Your task to perform on an android device: change text size in settings app Image 0: 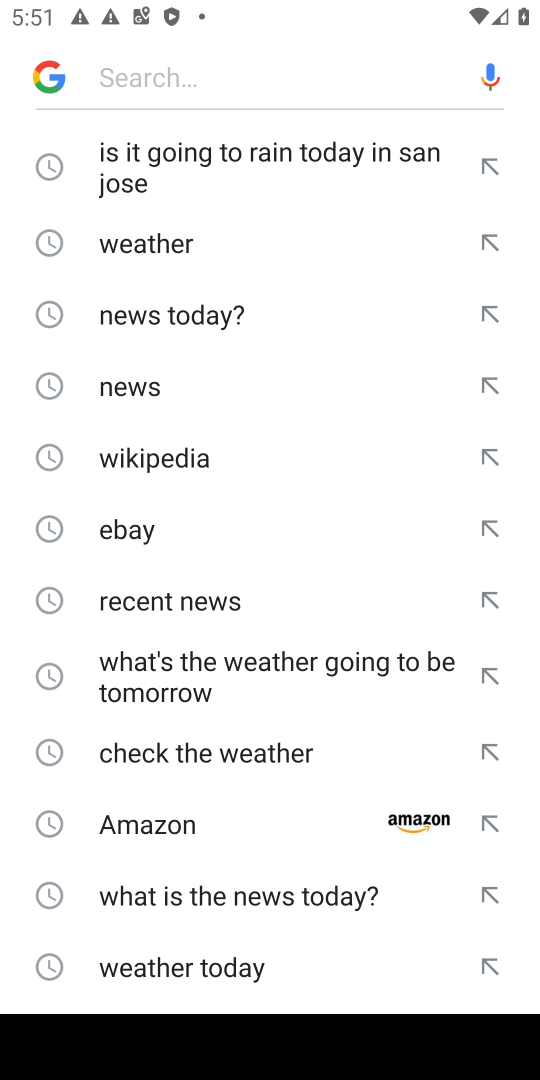
Step 0: press home button
Your task to perform on an android device: change text size in settings app Image 1: 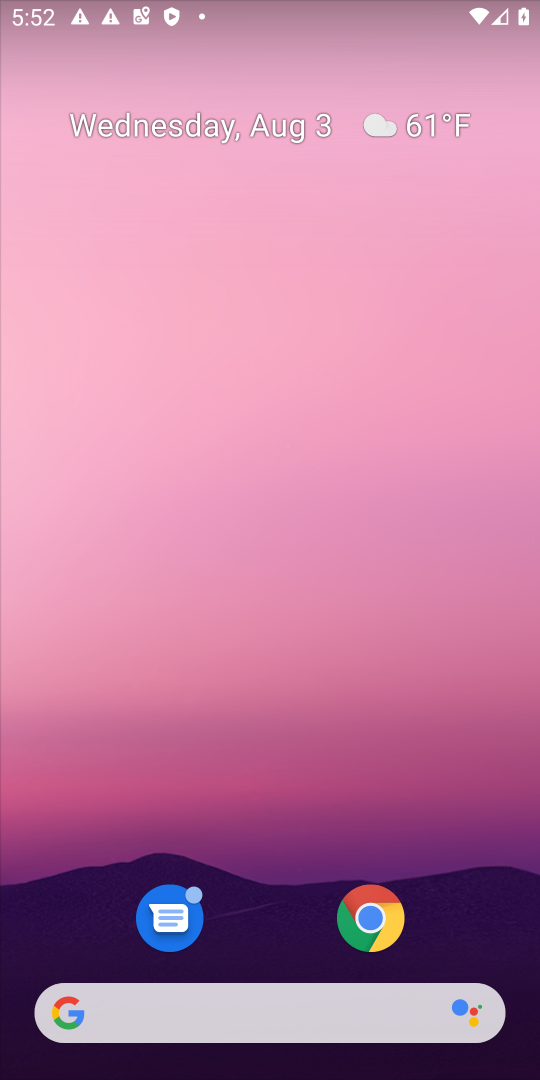
Step 1: drag from (286, 930) to (323, 261)
Your task to perform on an android device: change text size in settings app Image 2: 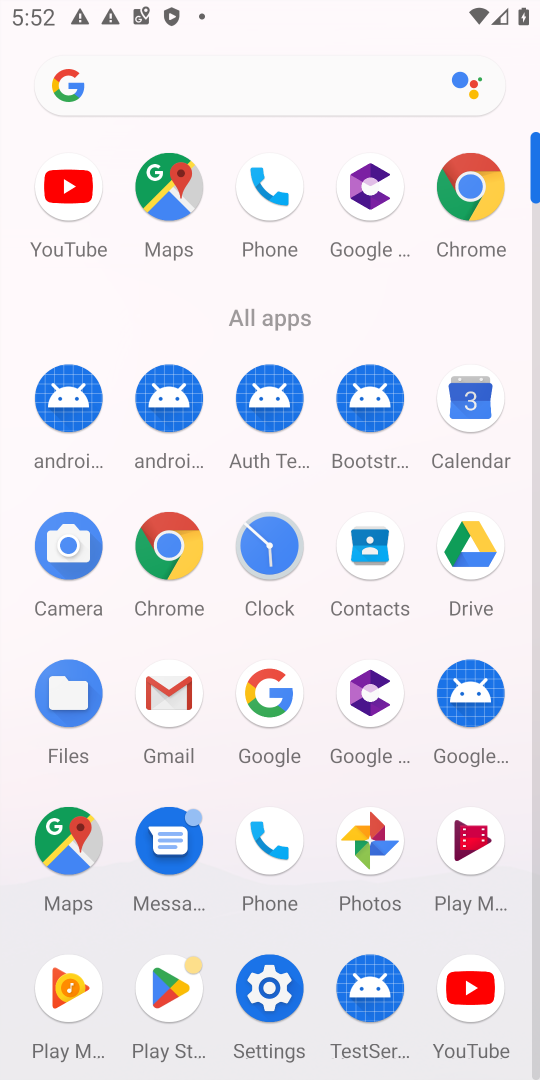
Step 2: click (267, 974)
Your task to perform on an android device: change text size in settings app Image 3: 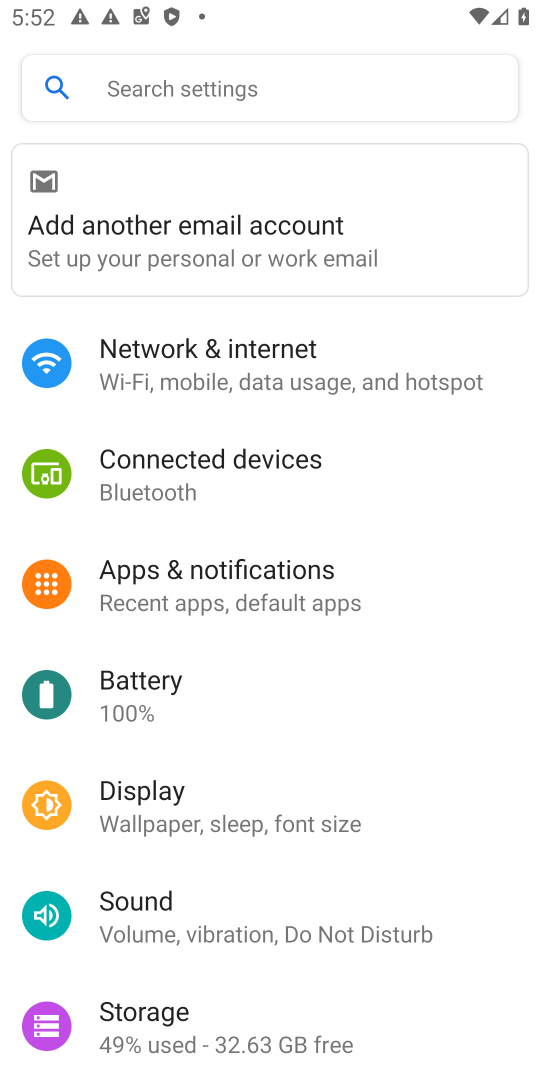
Step 3: click (258, 829)
Your task to perform on an android device: change text size in settings app Image 4: 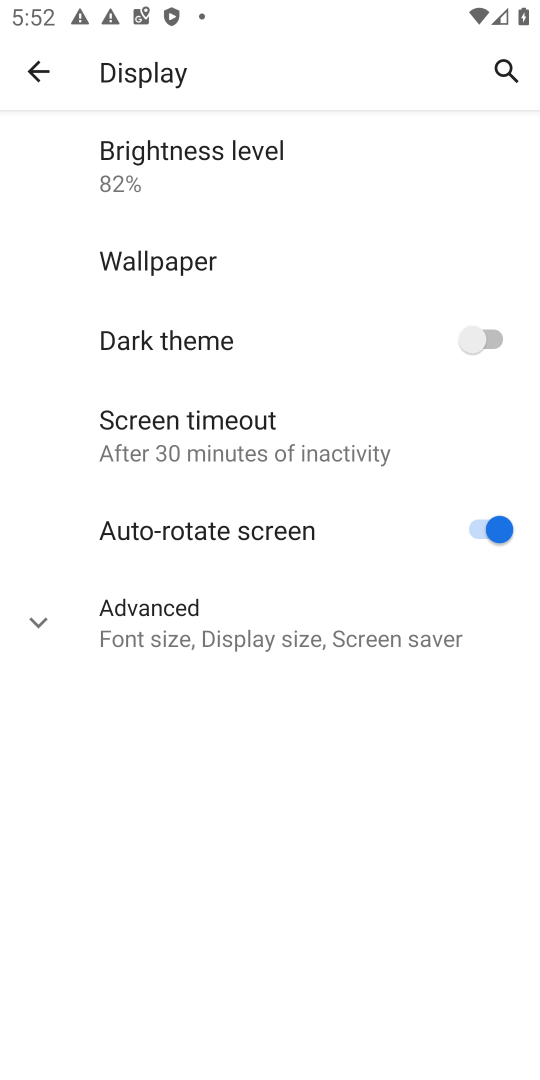
Step 4: click (341, 618)
Your task to perform on an android device: change text size in settings app Image 5: 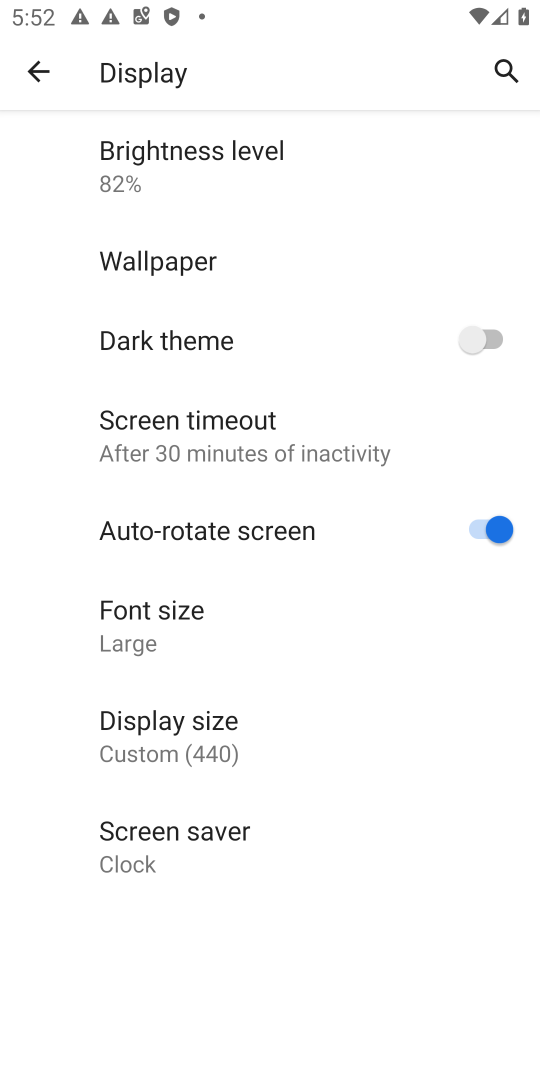
Step 5: click (184, 639)
Your task to perform on an android device: change text size in settings app Image 6: 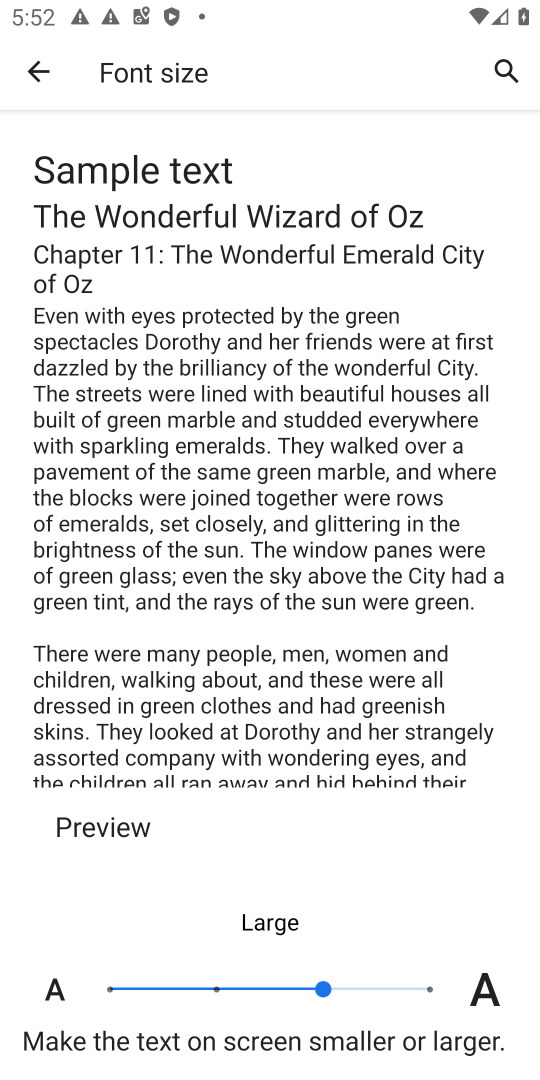
Step 6: click (428, 984)
Your task to perform on an android device: change text size in settings app Image 7: 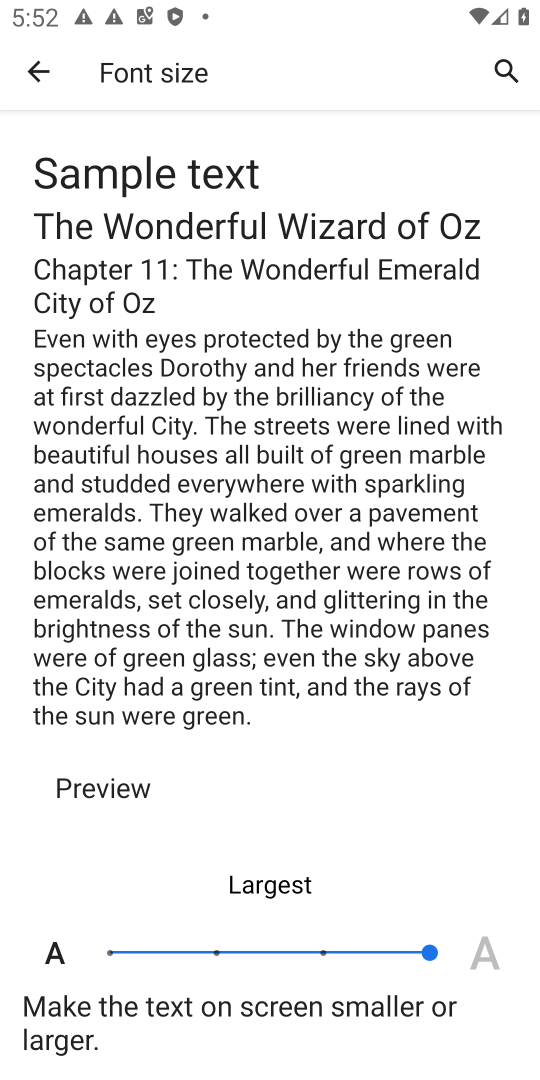
Step 7: task complete